Your task to perform on an android device: Turn on the flashlight Image 0: 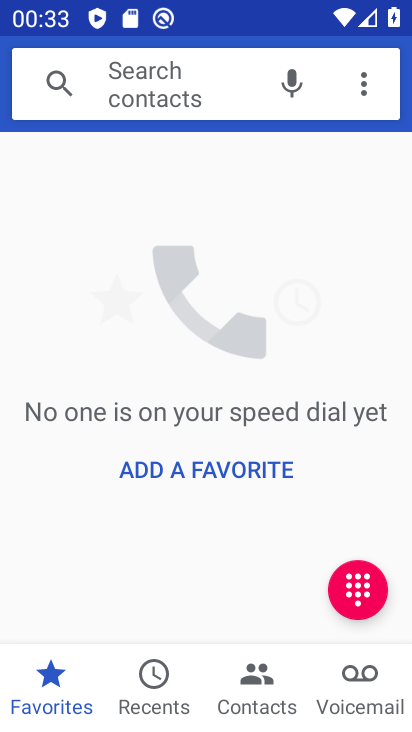
Step 0: press home button
Your task to perform on an android device: Turn on the flashlight Image 1: 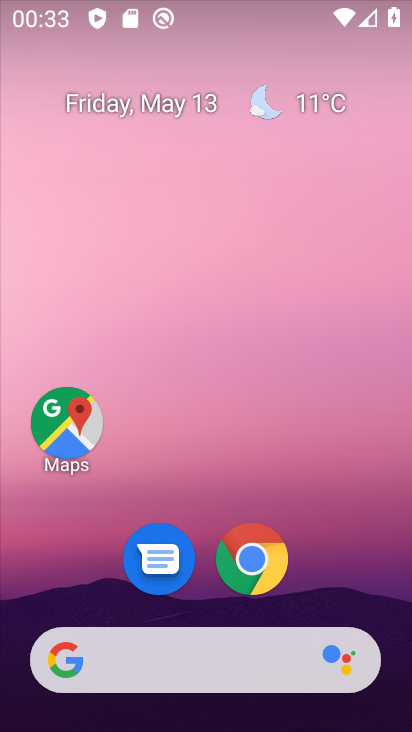
Step 1: drag from (335, 536) to (365, 70)
Your task to perform on an android device: Turn on the flashlight Image 2: 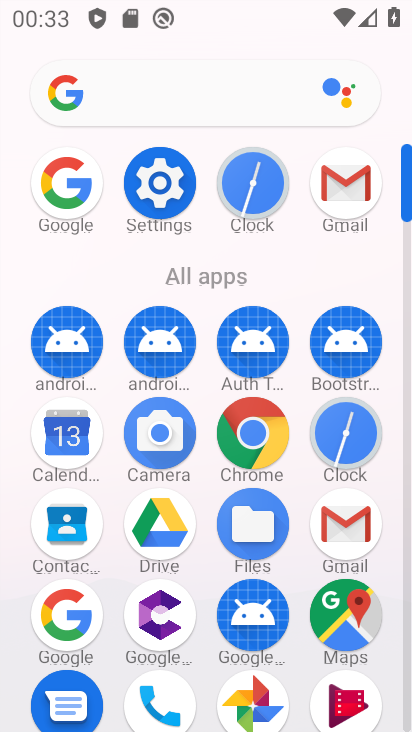
Step 2: drag from (107, 554) to (119, 464)
Your task to perform on an android device: Turn on the flashlight Image 3: 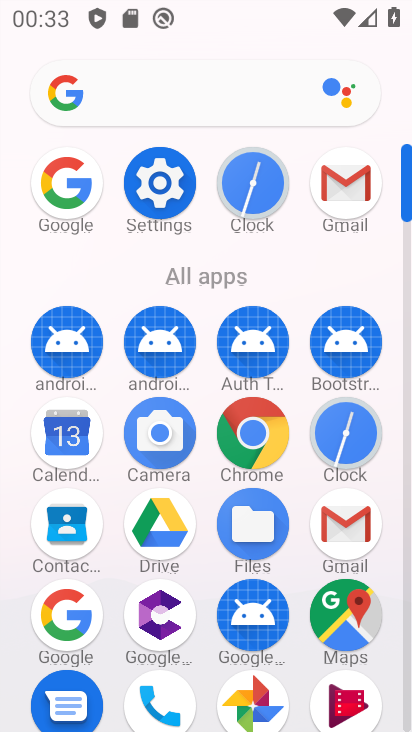
Step 3: click (157, 180)
Your task to perform on an android device: Turn on the flashlight Image 4: 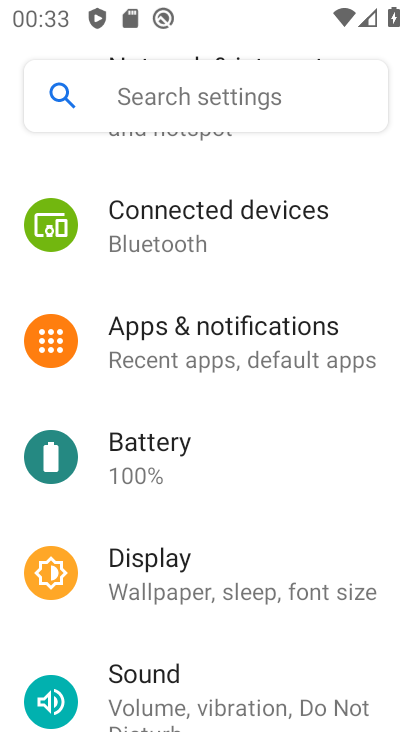
Step 4: click (175, 104)
Your task to perform on an android device: Turn on the flashlight Image 5: 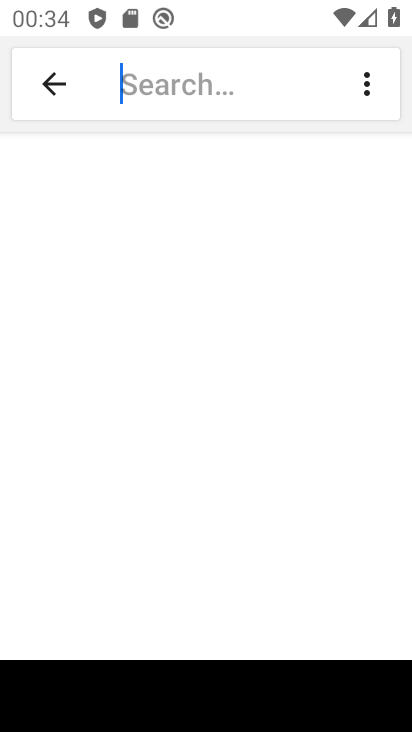
Step 5: type "flash"
Your task to perform on an android device: Turn on the flashlight Image 6: 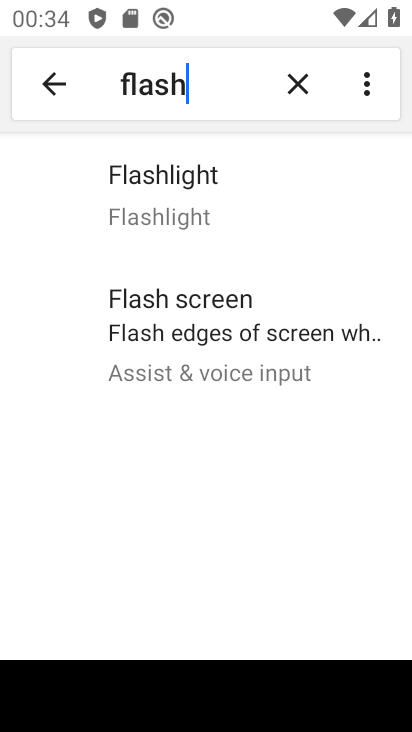
Step 6: task complete